Your task to perform on an android device: Do I have any events this weekend? Image 0: 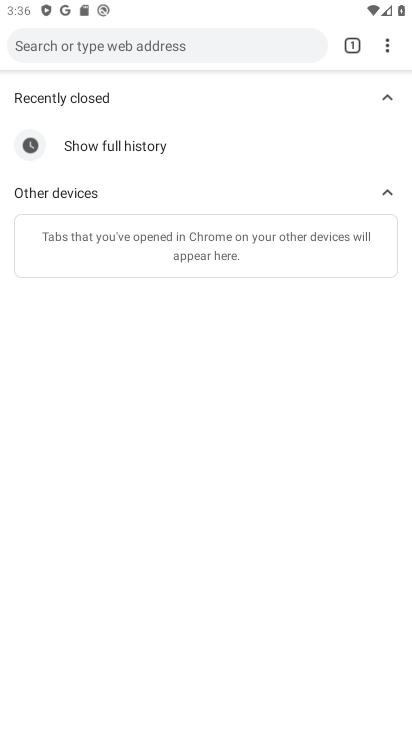
Step 0: press back button
Your task to perform on an android device: Do I have any events this weekend? Image 1: 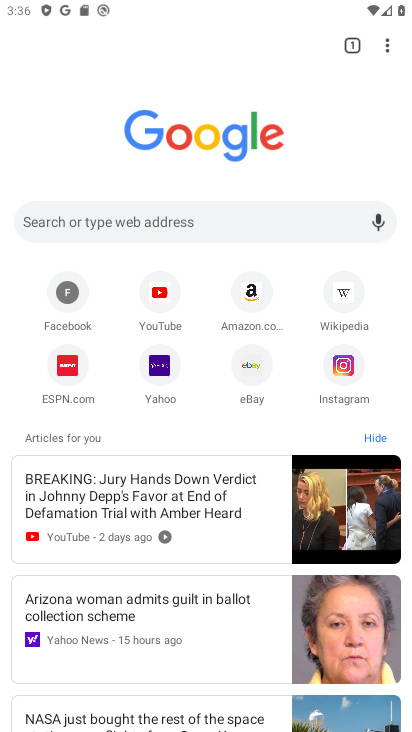
Step 1: press home button
Your task to perform on an android device: Do I have any events this weekend? Image 2: 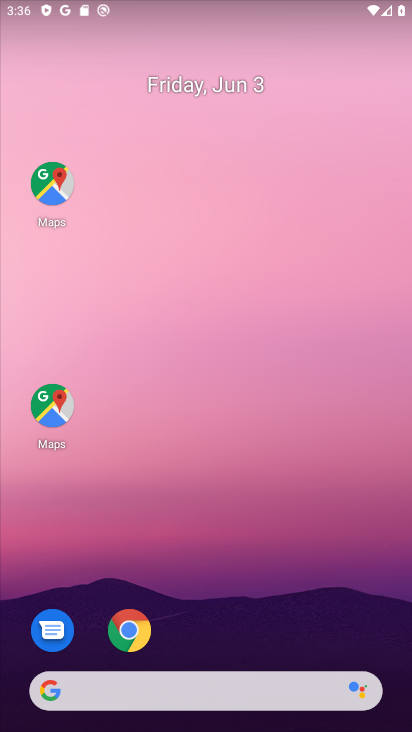
Step 2: drag from (206, 206) to (194, 107)
Your task to perform on an android device: Do I have any events this weekend? Image 3: 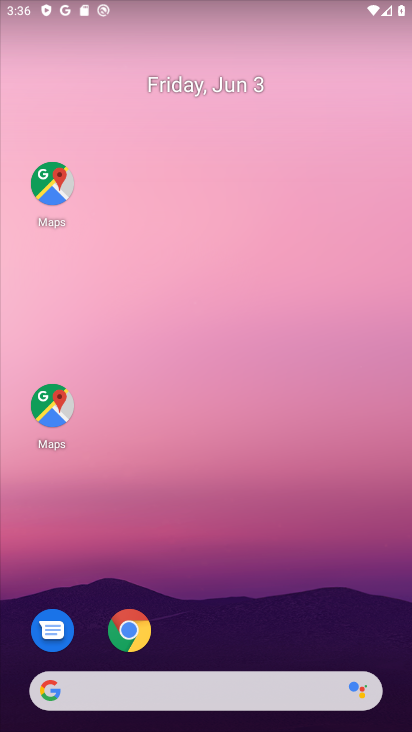
Step 3: drag from (245, 713) to (237, 76)
Your task to perform on an android device: Do I have any events this weekend? Image 4: 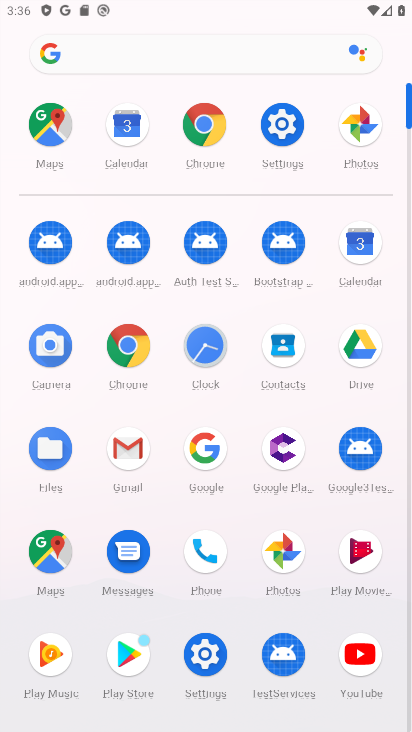
Step 4: click (370, 239)
Your task to perform on an android device: Do I have any events this weekend? Image 5: 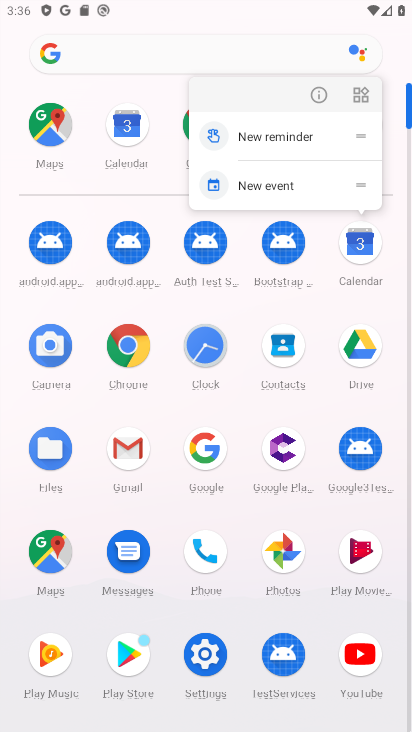
Step 5: click (366, 242)
Your task to perform on an android device: Do I have any events this weekend? Image 6: 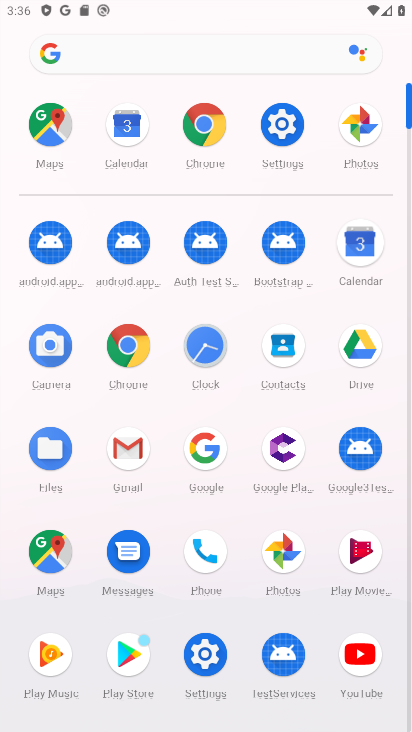
Step 6: click (349, 244)
Your task to perform on an android device: Do I have any events this weekend? Image 7: 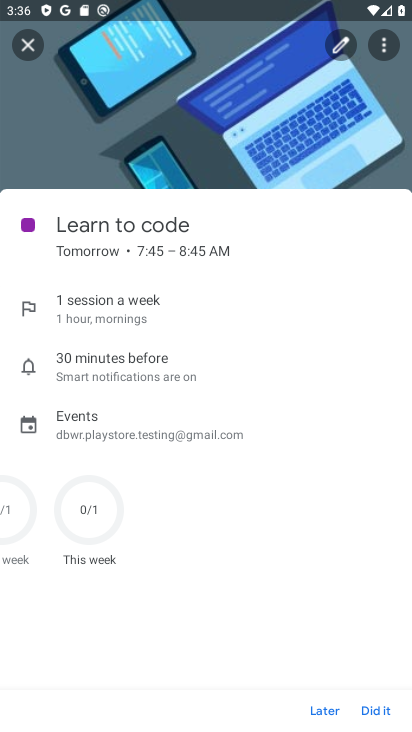
Step 7: click (328, 711)
Your task to perform on an android device: Do I have any events this weekend? Image 8: 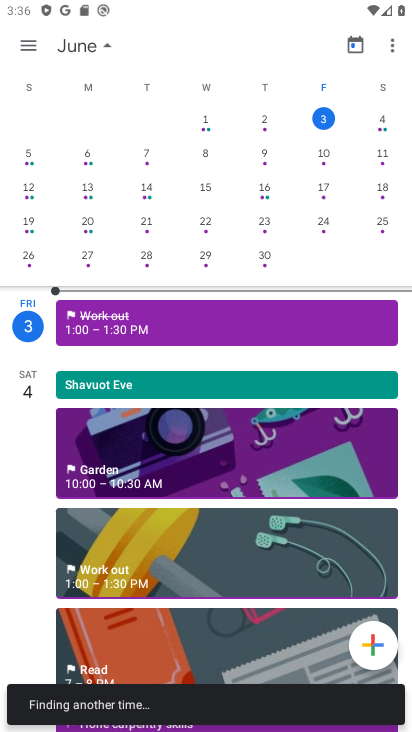
Step 8: click (391, 110)
Your task to perform on an android device: Do I have any events this weekend? Image 9: 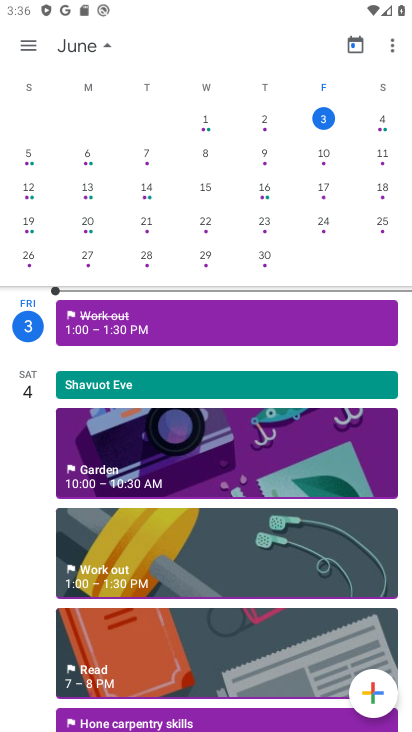
Step 9: task complete